Your task to perform on an android device: see creations saved in the google photos Image 0: 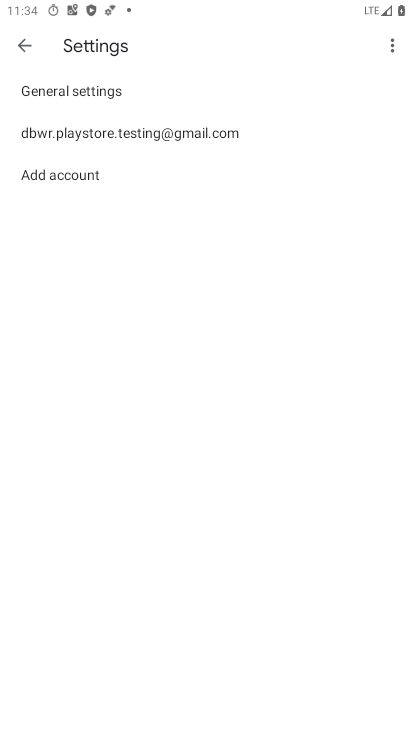
Step 0: press back button
Your task to perform on an android device: see creations saved in the google photos Image 1: 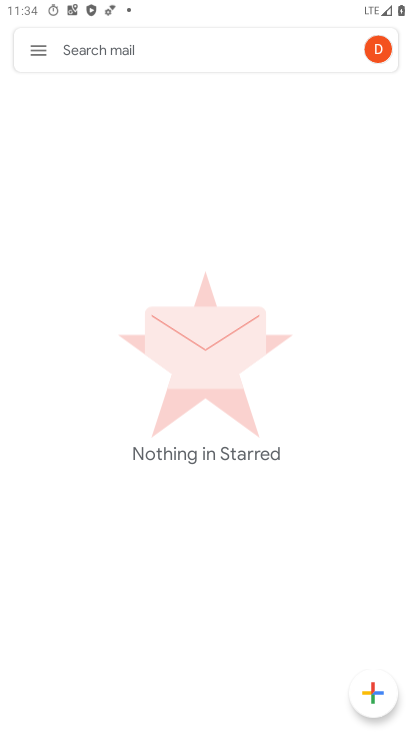
Step 1: press back button
Your task to perform on an android device: see creations saved in the google photos Image 2: 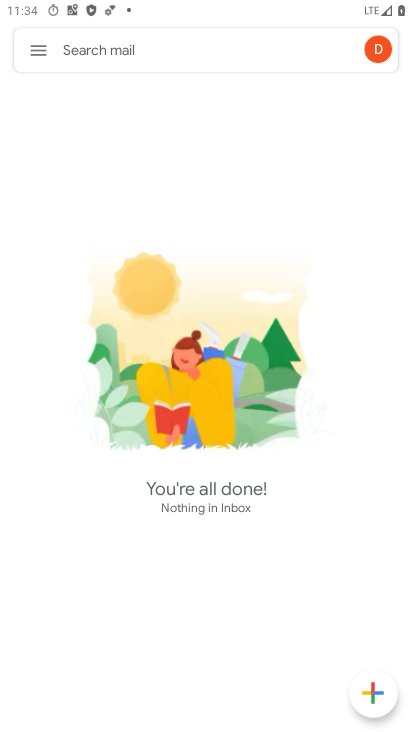
Step 2: press back button
Your task to perform on an android device: see creations saved in the google photos Image 3: 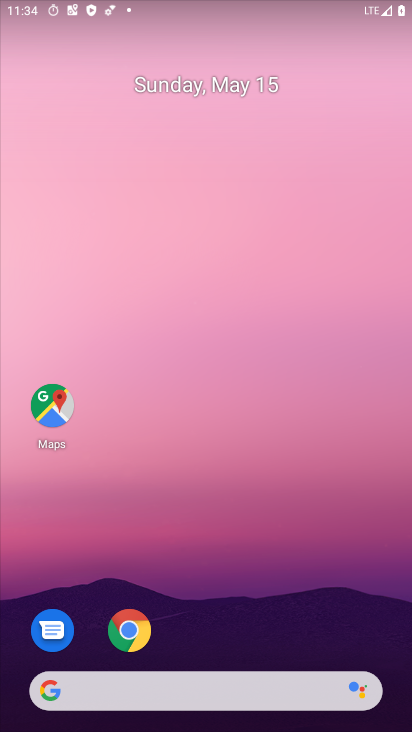
Step 3: drag from (203, 595) to (272, 90)
Your task to perform on an android device: see creations saved in the google photos Image 4: 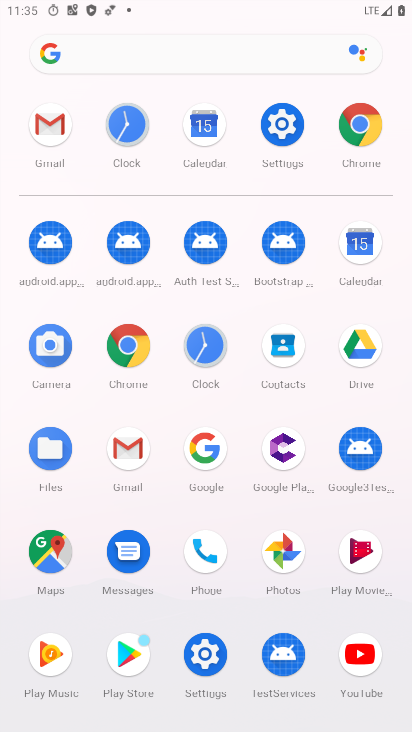
Step 4: click (277, 557)
Your task to perform on an android device: see creations saved in the google photos Image 5: 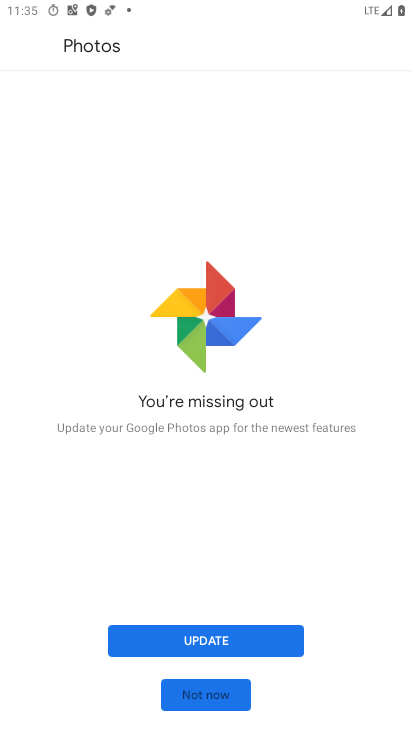
Step 5: click (313, 403)
Your task to perform on an android device: see creations saved in the google photos Image 6: 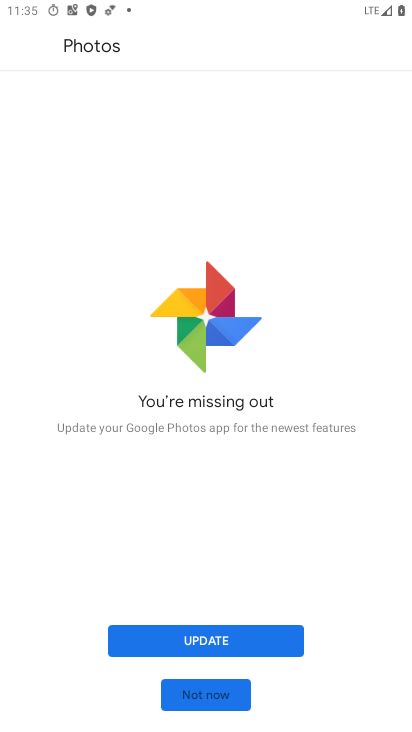
Step 6: click (186, 703)
Your task to perform on an android device: see creations saved in the google photos Image 7: 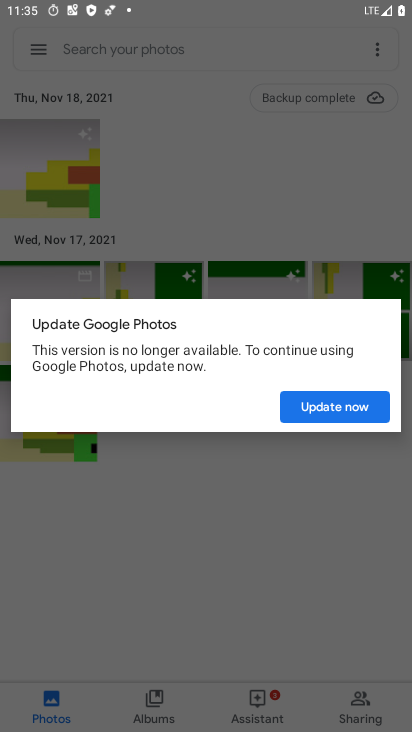
Step 7: click (324, 404)
Your task to perform on an android device: see creations saved in the google photos Image 8: 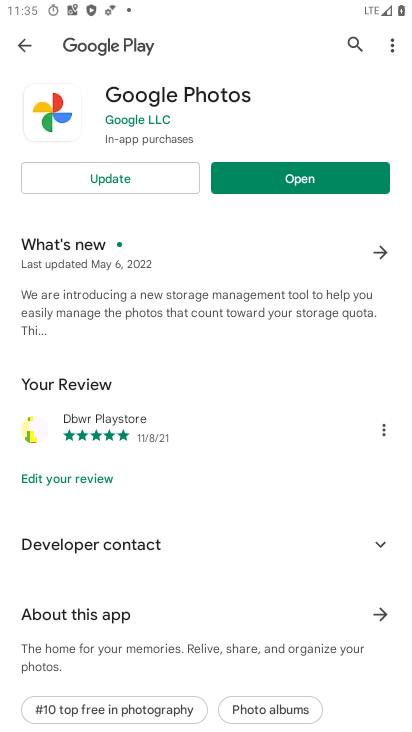
Step 8: click (294, 183)
Your task to perform on an android device: see creations saved in the google photos Image 9: 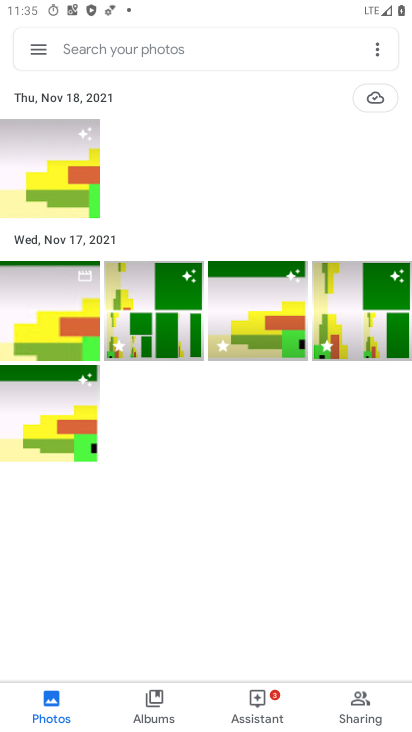
Step 9: click (36, 46)
Your task to perform on an android device: see creations saved in the google photos Image 10: 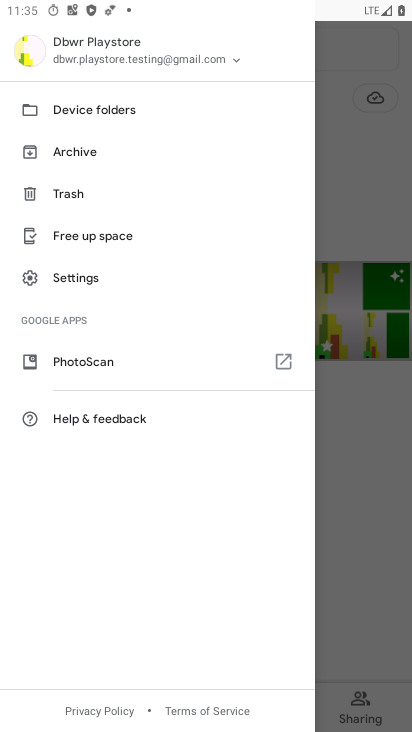
Step 10: click (73, 151)
Your task to perform on an android device: see creations saved in the google photos Image 11: 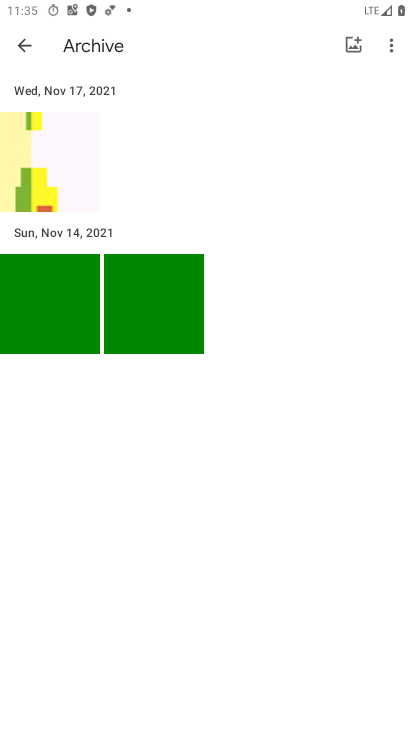
Step 11: task complete